Your task to perform on an android device: Open Google Image 0: 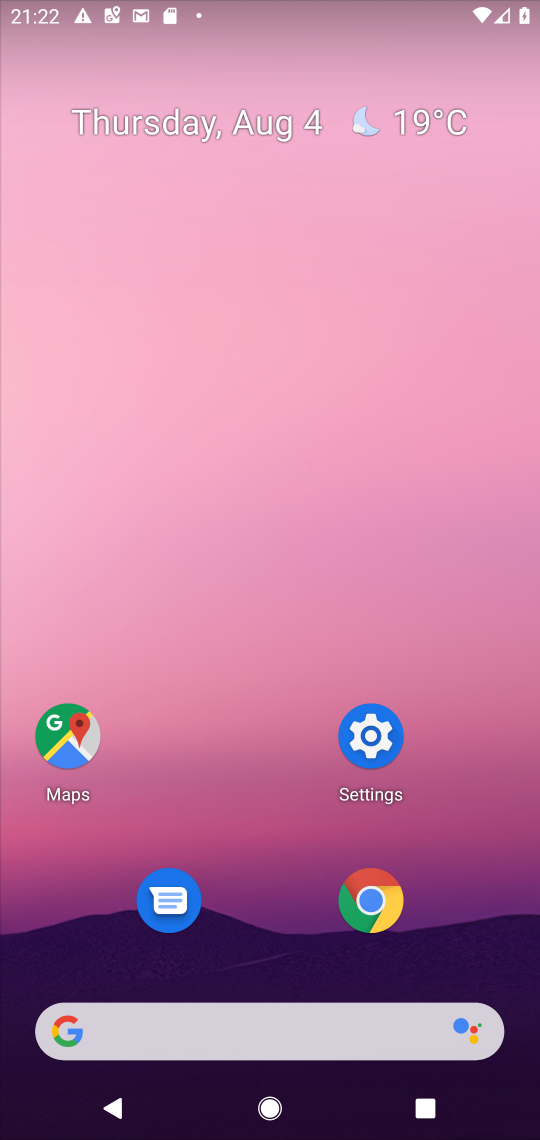
Step 0: drag from (249, 999) to (412, 57)
Your task to perform on an android device: Open Google Image 1: 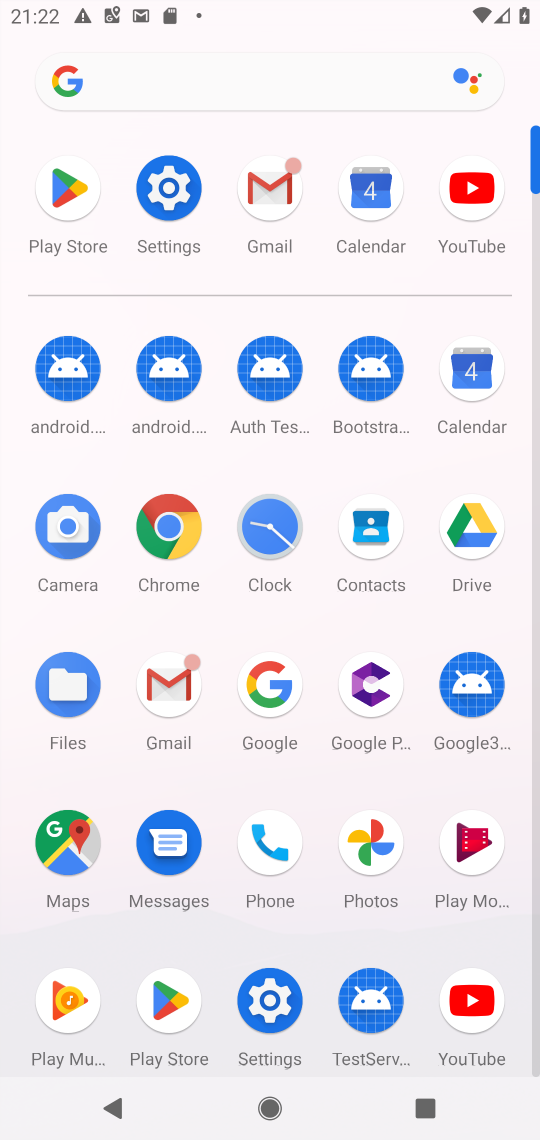
Step 1: click (271, 700)
Your task to perform on an android device: Open Google Image 2: 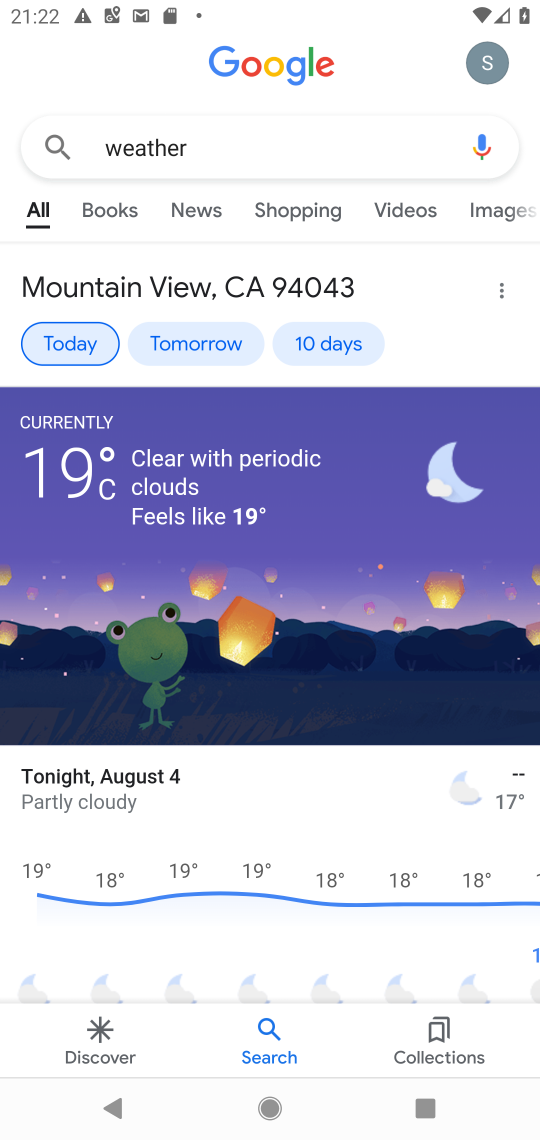
Step 2: task complete